Your task to perform on an android device: check google app version Image 0: 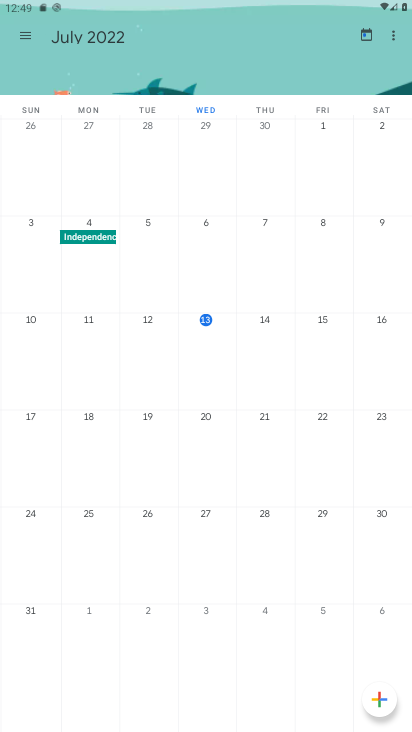
Step 0: press back button
Your task to perform on an android device: check google app version Image 1: 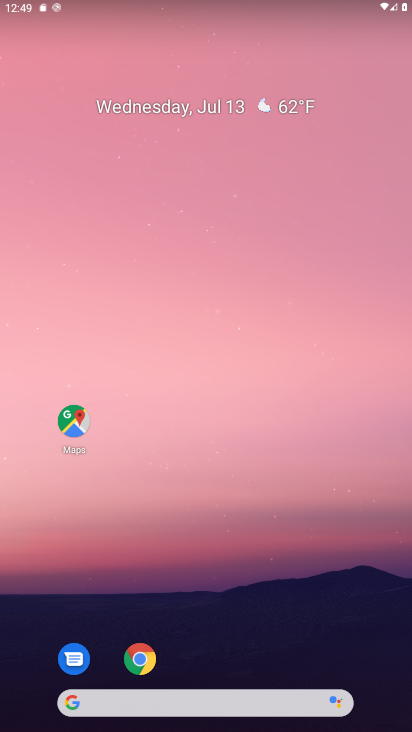
Step 1: drag from (225, 708) to (188, 176)
Your task to perform on an android device: check google app version Image 2: 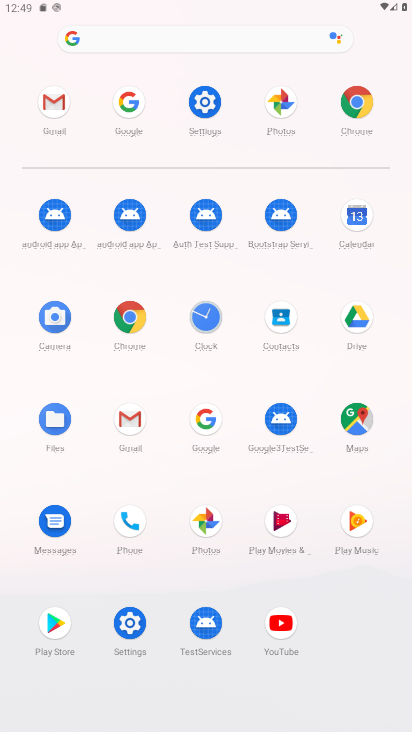
Step 2: click (208, 418)
Your task to perform on an android device: check google app version Image 3: 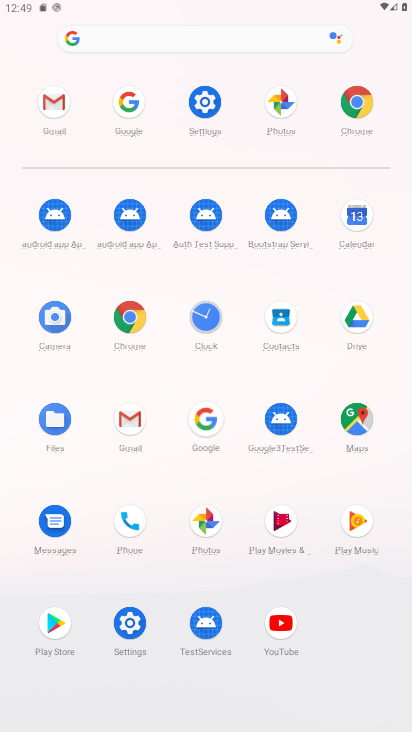
Step 3: click (209, 417)
Your task to perform on an android device: check google app version Image 4: 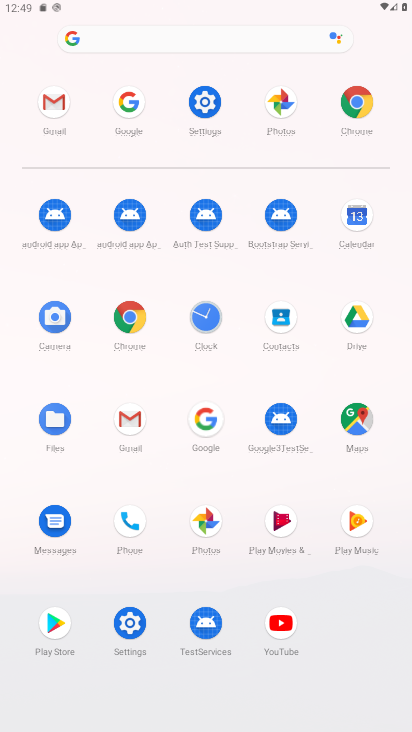
Step 4: click (210, 417)
Your task to perform on an android device: check google app version Image 5: 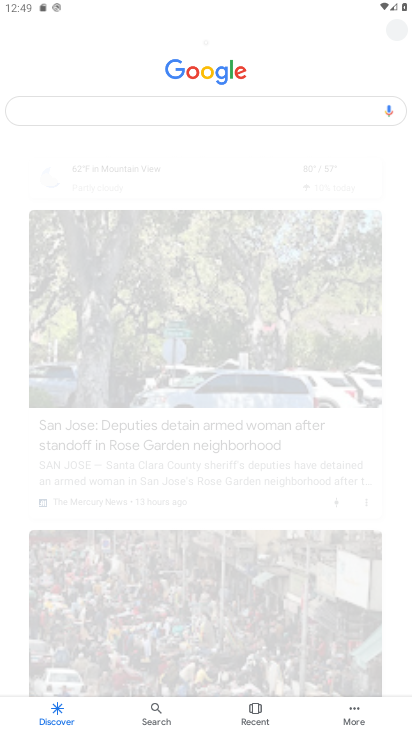
Step 5: click (214, 414)
Your task to perform on an android device: check google app version Image 6: 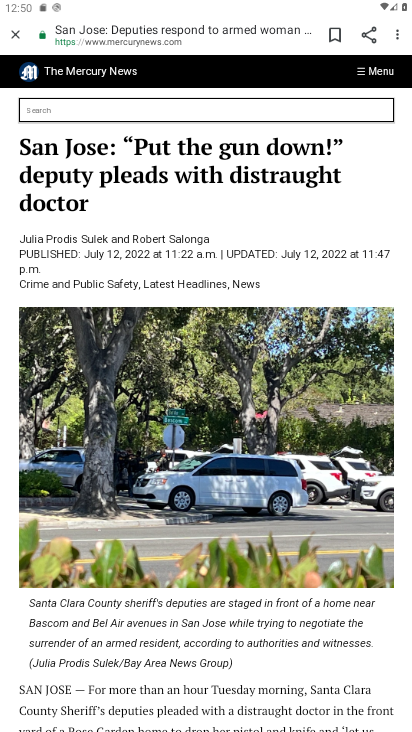
Step 6: click (16, 30)
Your task to perform on an android device: check google app version Image 7: 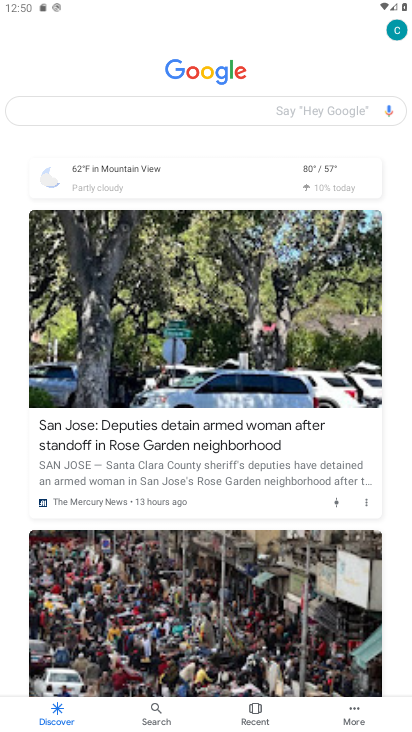
Step 7: click (359, 724)
Your task to perform on an android device: check google app version Image 8: 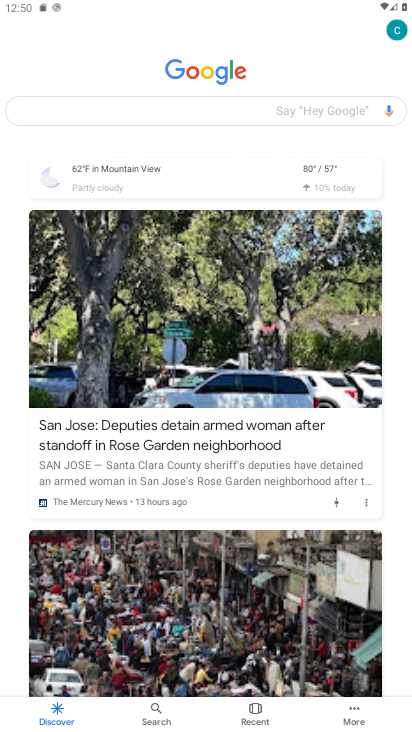
Step 8: click (365, 723)
Your task to perform on an android device: check google app version Image 9: 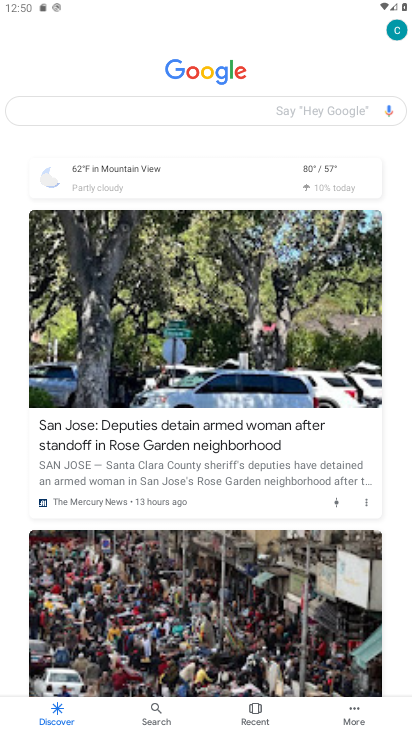
Step 9: click (365, 723)
Your task to perform on an android device: check google app version Image 10: 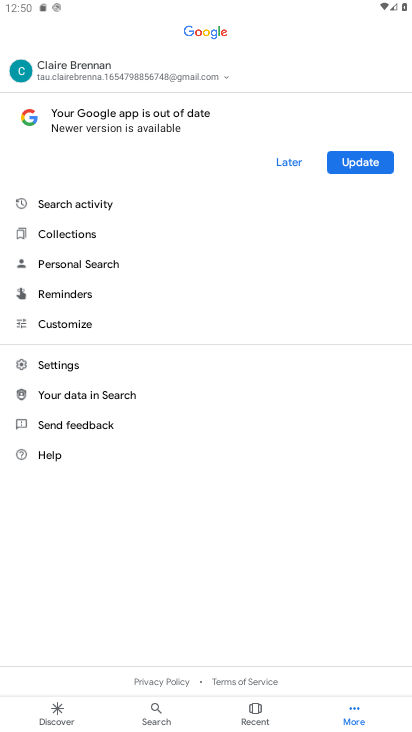
Step 10: click (369, 726)
Your task to perform on an android device: check google app version Image 11: 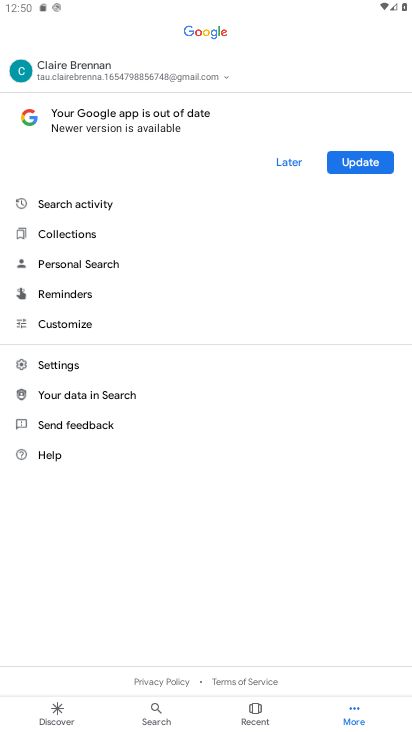
Step 11: click (369, 726)
Your task to perform on an android device: check google app version Image 12: 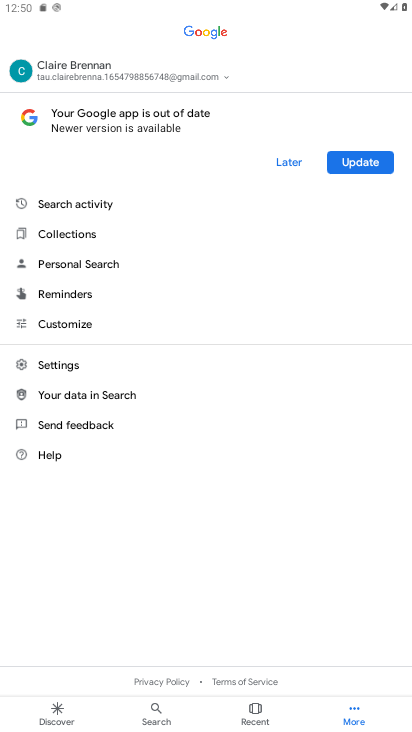
Step 12: task complete